Your task to perform on an android device: Open calendar and show me the second week of next month Image 0: 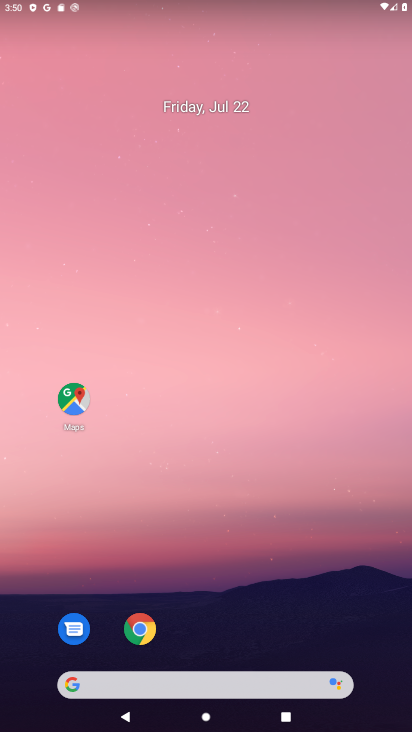
Step 0: drag from (187, 684) to (165, 44)
Your task to perform on an android device: Open calendar and show me the second week of next month Image 1: 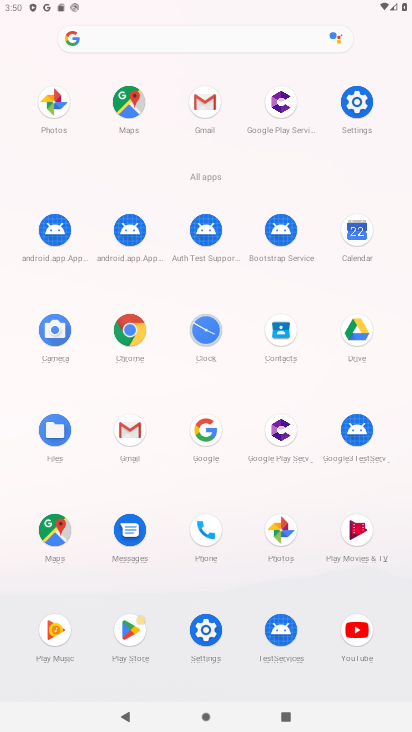
Step 1: click (361, 260)
Your task to perform on an android device: Open calendar and show me the second week of next month Image 2: 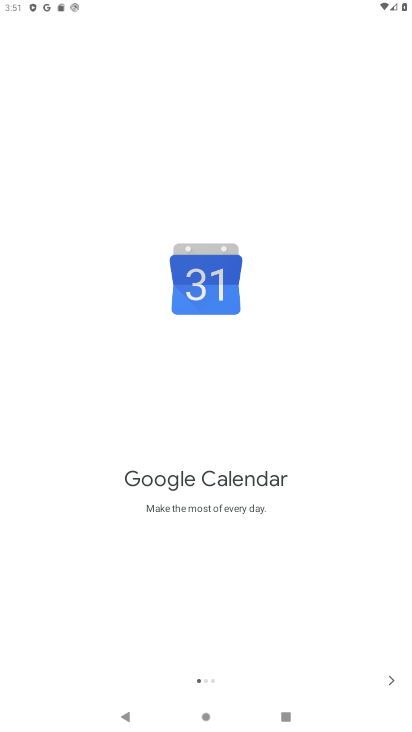
Step 2: click (397, 682)
Your task to perform on an android device: Open calendar and show me the second week of next month Image 3: 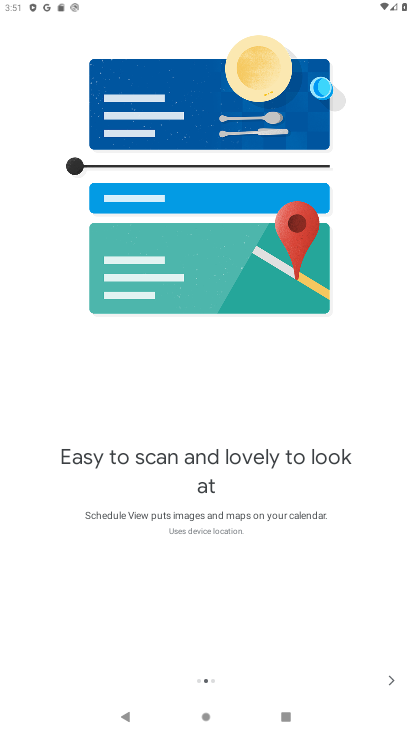
Step 3: click (394, 681)
Your task to perform on an android device: Open calendar and show me the second week of next month Image 4: 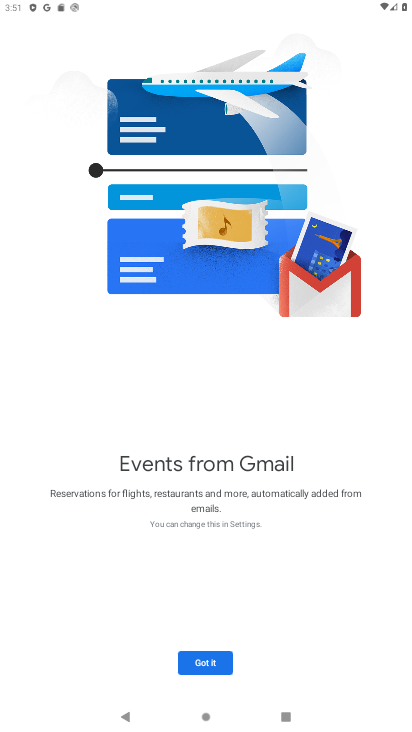
Step 4: click (217, 666)
Your task to perform on an android device: Open calendar and show me the second week of next month Image 5: 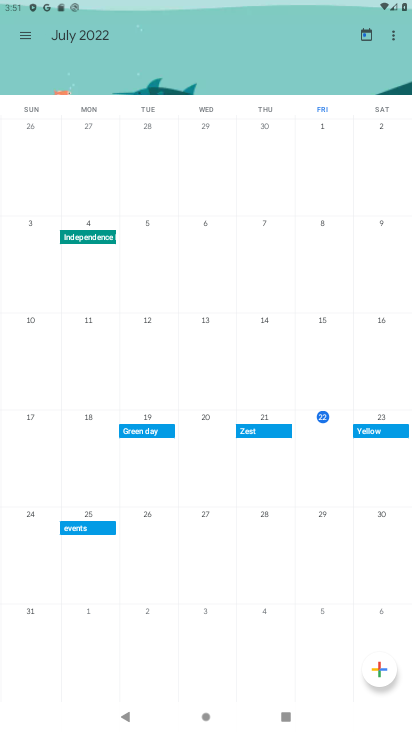
Step 5: drag from (314, 414) to (0, 468)
Your task to perform on an android device: Open calendar and show me the second week of next month Image 6: 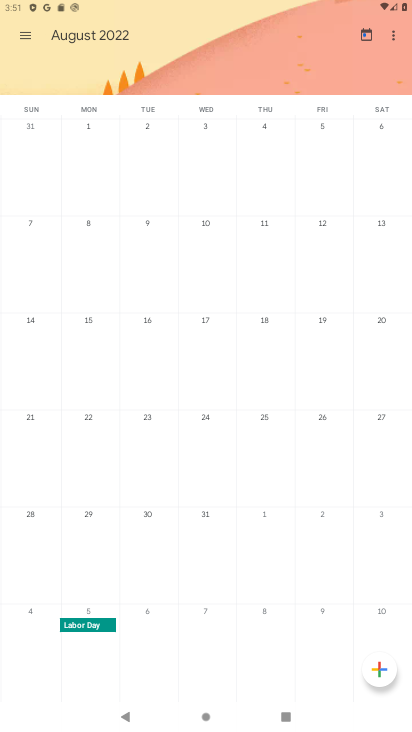
Step 6: click (93, 242)
Your task to perform on an android device: Open calendar and show me the second week of next month Image 7: 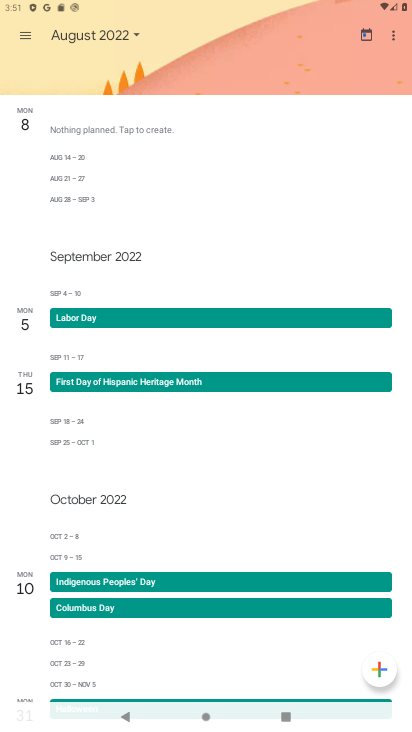
Step 7: task complete